Your task to perform on an android device: Open Chrome and go to settings Image 0: 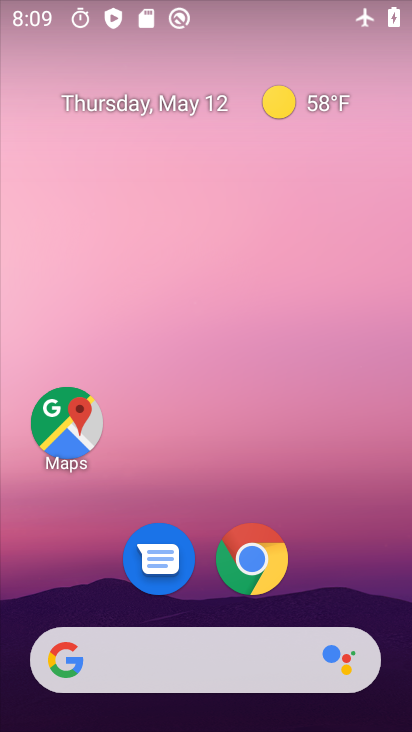
Step 0: click (253, 558)
Your task to perform on an android device: Open Chrome and go to settings Image 1: 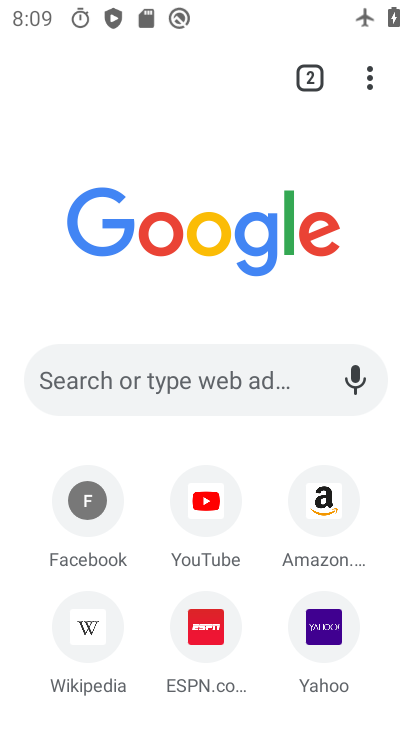
Step 1: click (372, 81)
Your task to perform on an android device: Open Chrome and go to settings Image 2: 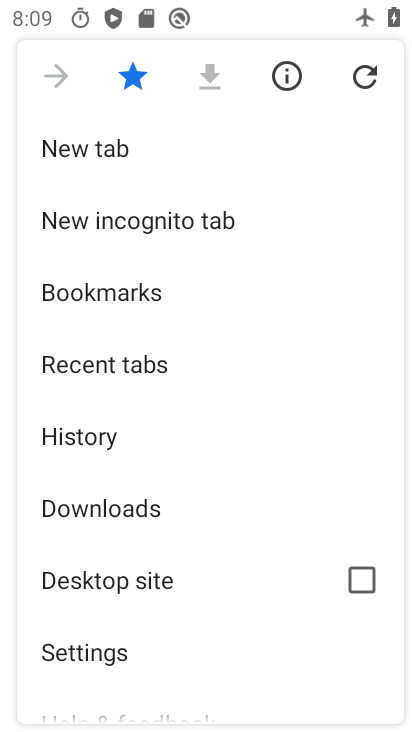
Step 2: click (91, 657)
Your task to perform on an android device: Open Chrome and go to settings Image 3: 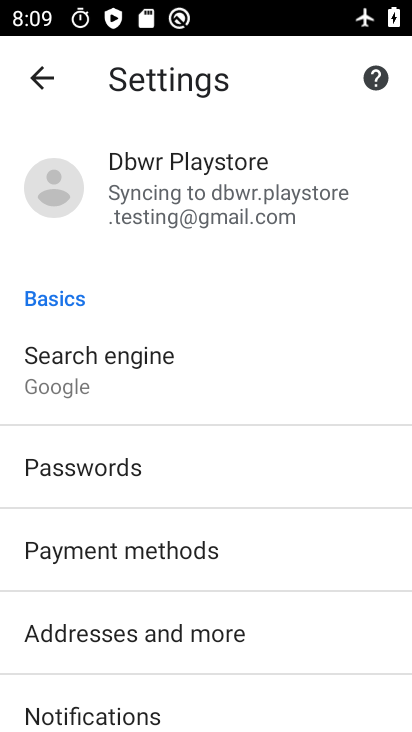
Step 3: task complete